Your task to perform on an android device: Open calendar and show me the second week of next month Image 0: 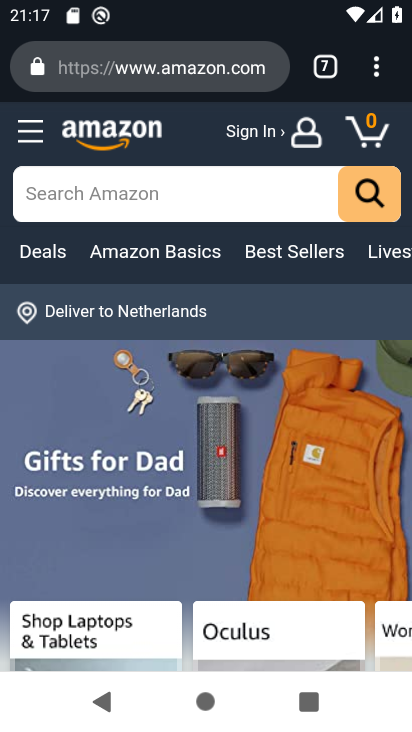
Step 0: press home button
Your task to perform on an android device: Open calendar and show me the second week of next month Image 1: 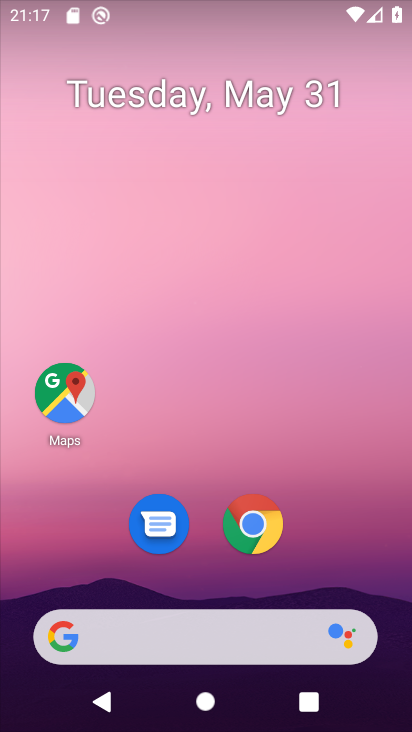
Step 1: drag from (307, 543) to (327, 38)
Your task to perform on an android device: Open calendar and show me the second week of next month Image 2: 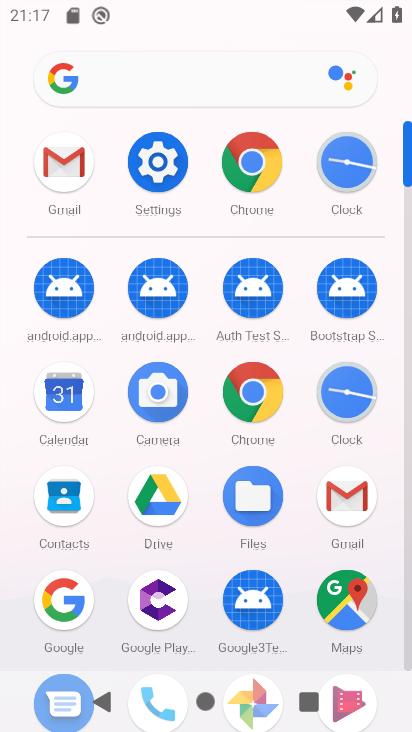
Step 2: click (69, 384)
Your task to perform on an android device: Open calendar and show me the second week of next month Image 3: 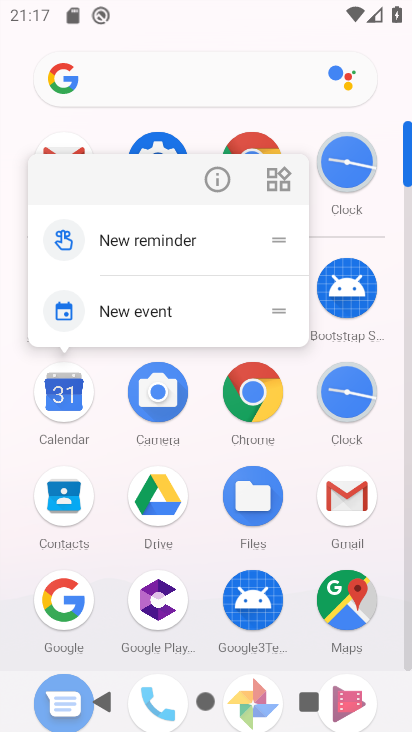
Step 3: click (69, 386)
Your task to perform on an android device: Open calendar and show me the second week of next month Image 4: 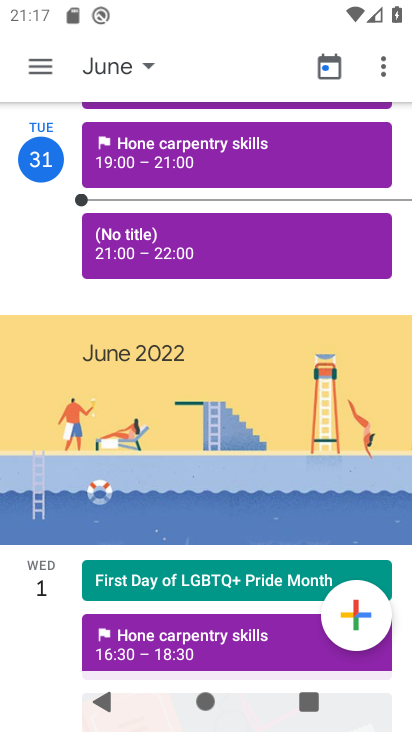
Step 4: click (43, 68)
Your task to perform on an android device: Open calendar and show me the second week of next month Image 5: 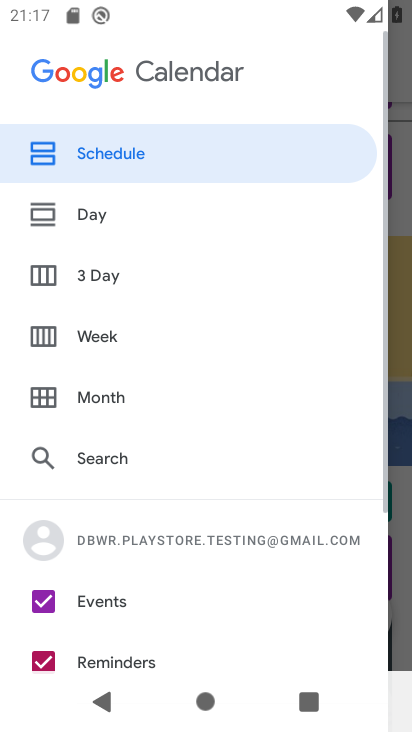
Step 5: click (50, 330)
Your task to perform on an android device: Open calendar and show me the second week of next month Image 6: 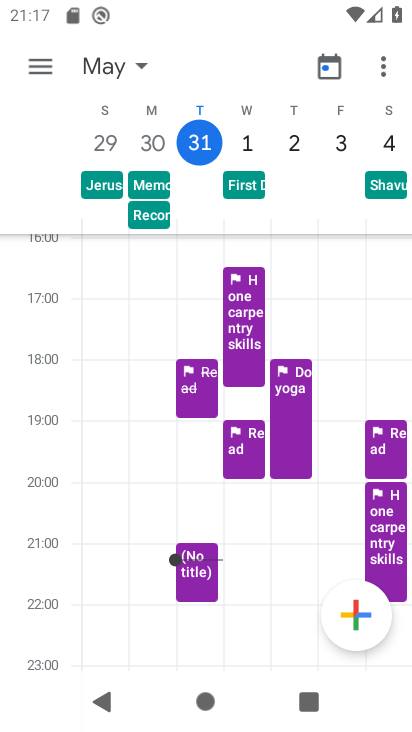
Step 6: task complete